Your task to perform on an android device: Open Maps and search for coffee Image 0: 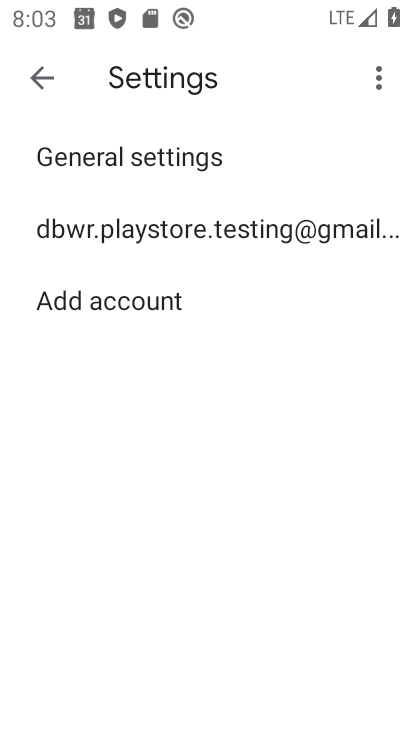
Step 0: click (36, 69)
Your task to perform on an android device: Open Maps and search for coffee Image 1: 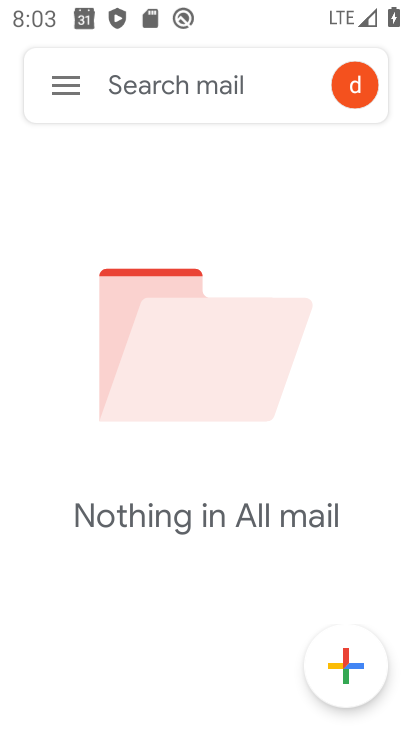
Step 1: press back button
Your task to perform on an android device: Open Maps and search for coffee Image 2: 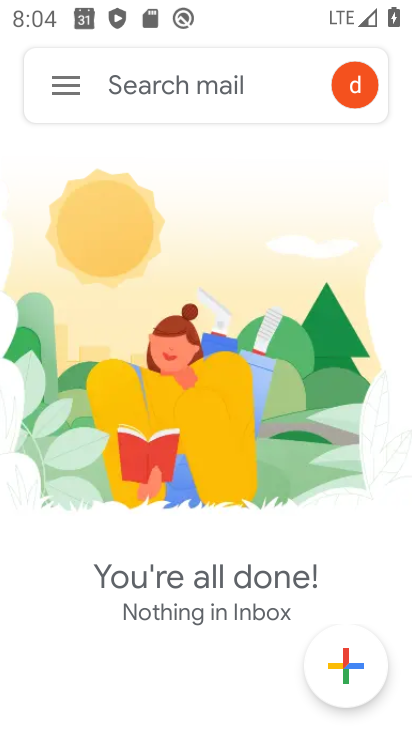
Step 2: click (110, 69)
Your task to perform on an android device: Open Maps and search for coffee Image 3: 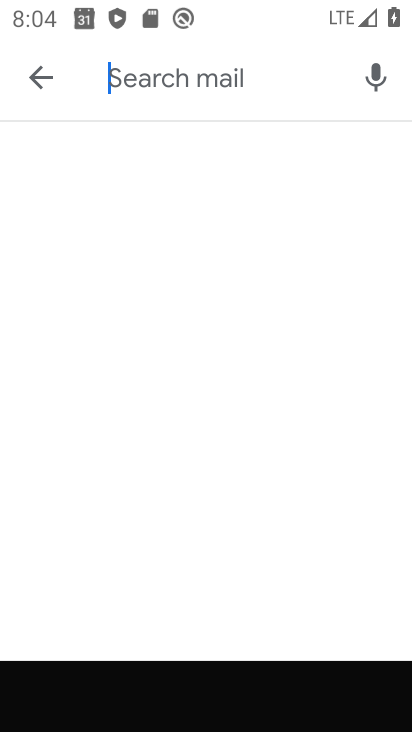
Step 3: press back button
Your task to perform on an android device: Open Maps and search for coffee Image 4: 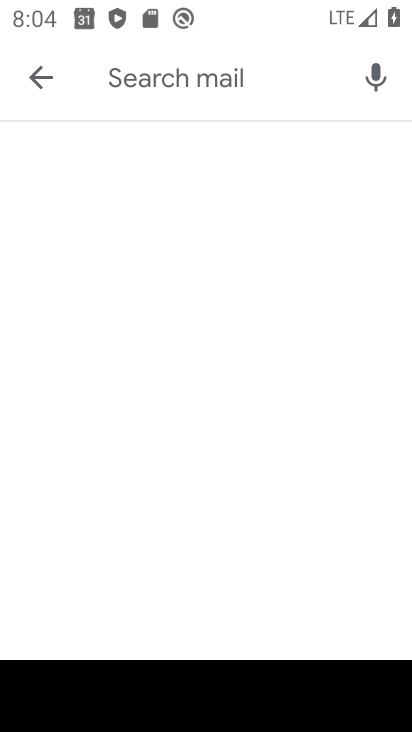
Step 4: press back button
Your task to perform on an android device: Open Maps and search for coffee Image 5: 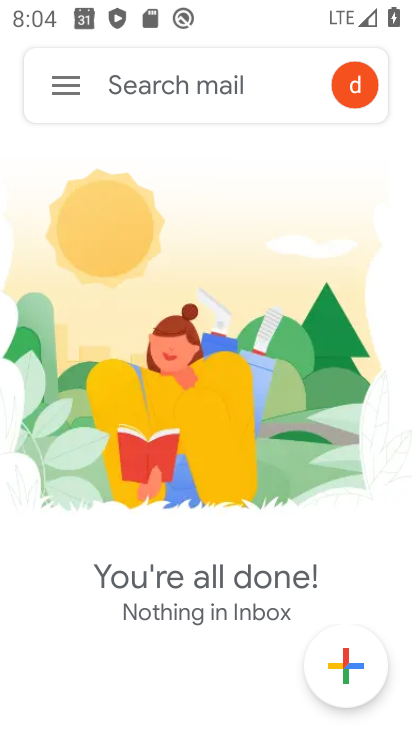
Step 5: press back button
Your task to perform on an android device: Open Maps and search for coffee Image 6: 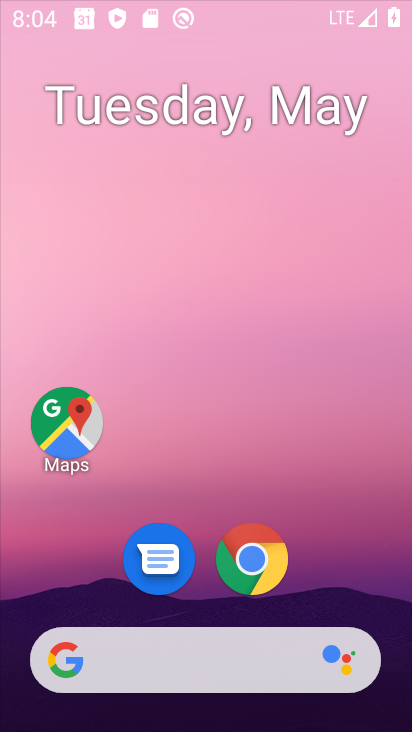
Step 6: press back button
Your task to perform on an android device: Open Maps and search for coffee Image 7: 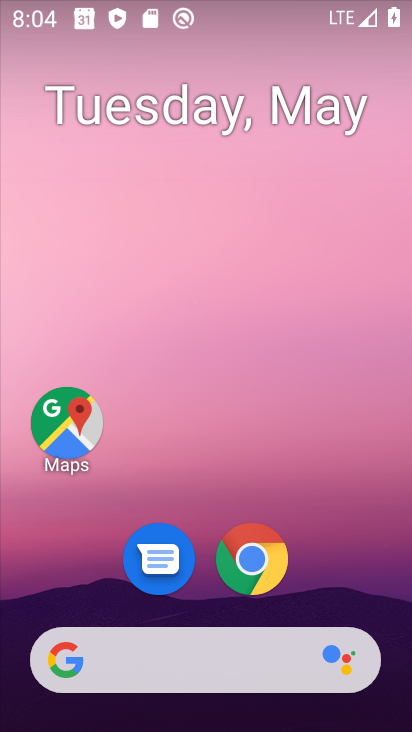
Step 7: drag from (371, 580) to (292, 40)
Your task to perform on an android device: Open Maps and search for coffee Image 8: 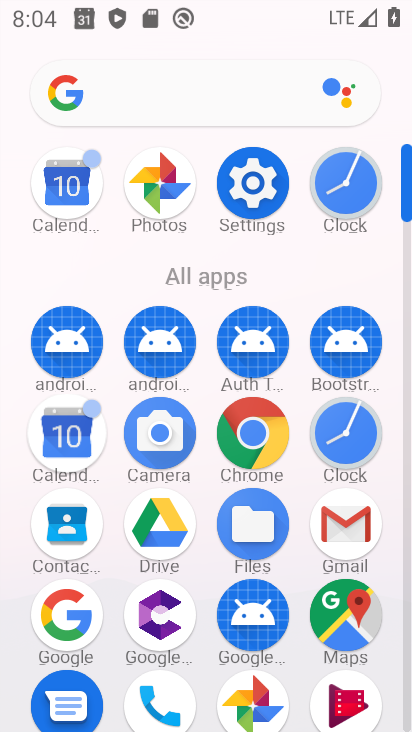
Step 8: click (324, 618)
Your task to perform on an android device: Open Maps and search for coffee Image 9: 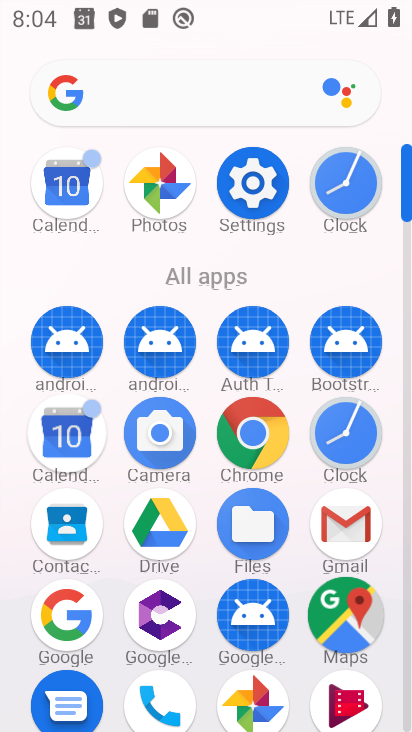
Step 9: click (330, 614)
Your task to perform on an android device: Open Maps and search for coffee Image 10: 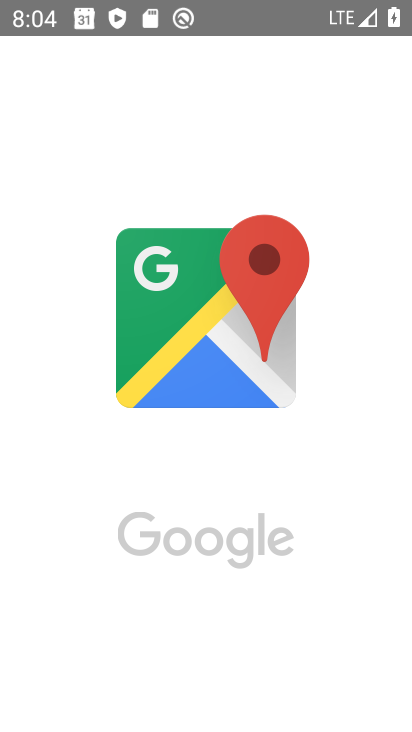
Step 10: click (335, 609)
Your task to perform on an android device: Open Maps and search for coffee Image 11: 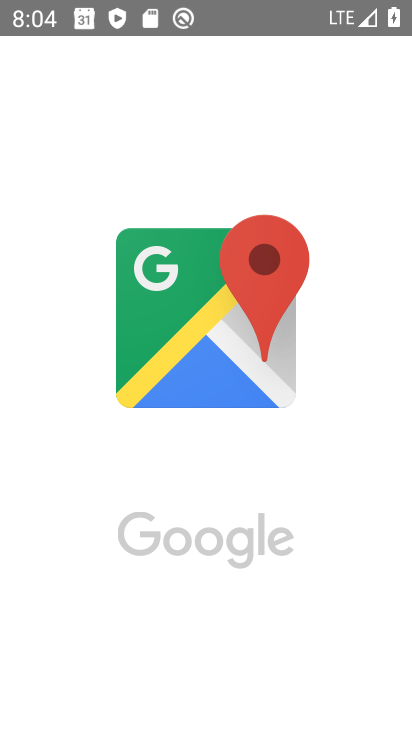
Step 11: click (202, 350)
Your task to perform on an android device: Open Maps and search for coffee Image 12: 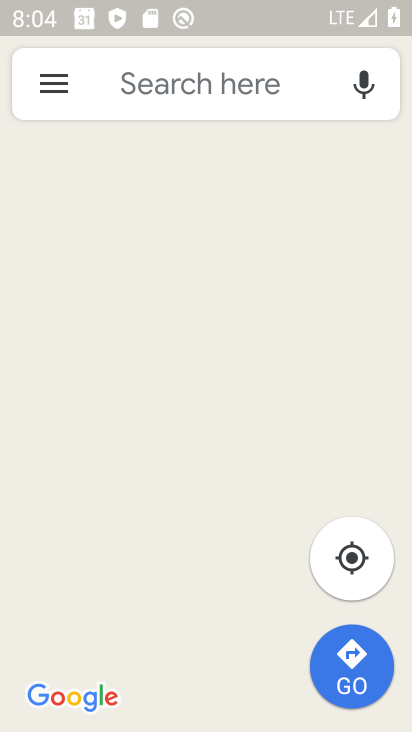
Step 12: click (129, 93)
Your task to perform on an android device: Open Maps and search for coffee Image 13: 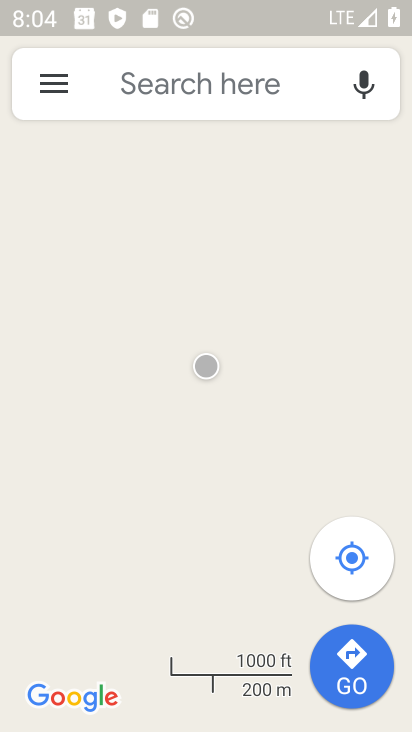
Step 13: click (129, 93)
Your task to perform on an android device: Open Maps and search for coffee Image 14: 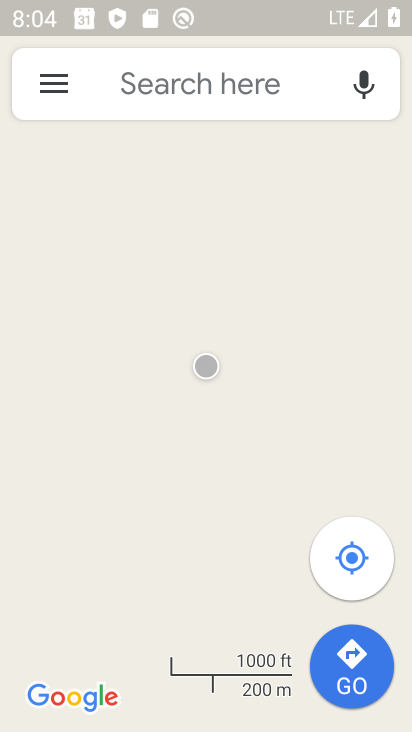
Step 14: click (129, 93)
Your task to perform on an android device: Open Maps and search for coffee Image 15: 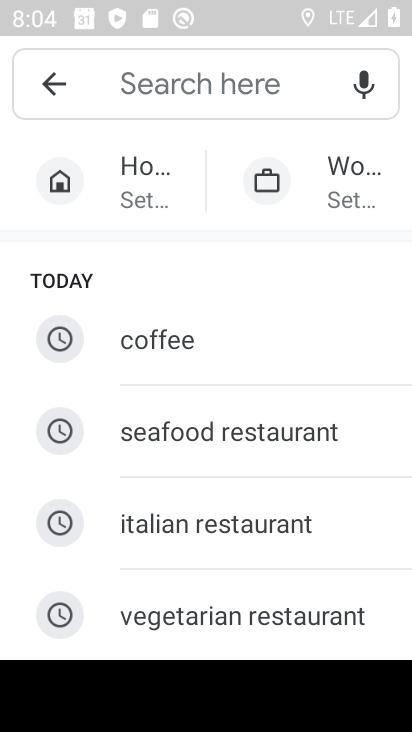
Step 15: type "coffee"
Your task to perform on an android device: Open Maps and search for coffee Image 16: 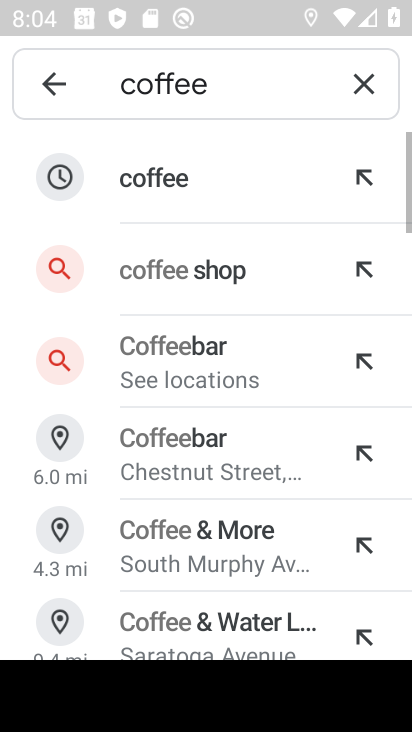
Step 16: click (158, 184)
Your task to perform on an android device: Open Maps and search for coffee Image 17: 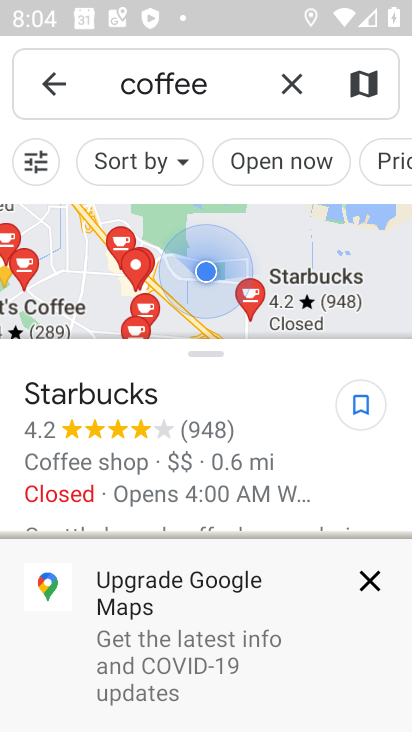
Step 17: task complete